Your task to perform on an android device: Do I have any events this weekend? Image 0: 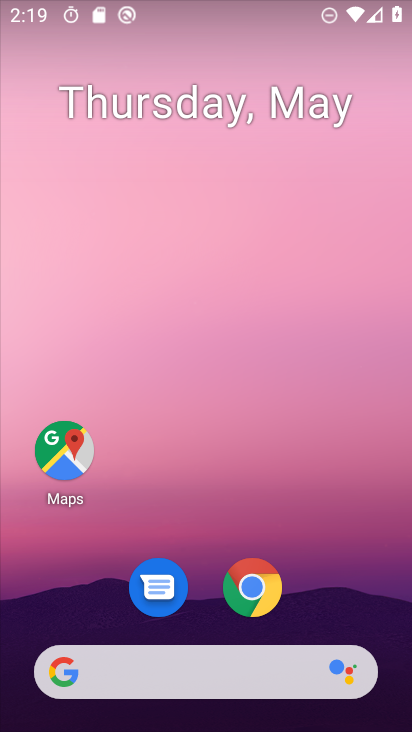
Step 0: drag from (334, 542) to (373, 154)
Your task to perform on an android device: Do I have any events this weekend? Image 1: 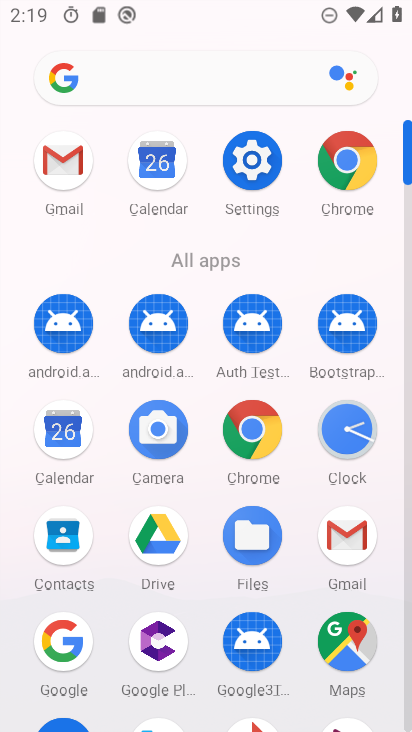
Step 1: click (62, 428)
Your task to perform on an android device: Do I have any events this weekend? Image 2: 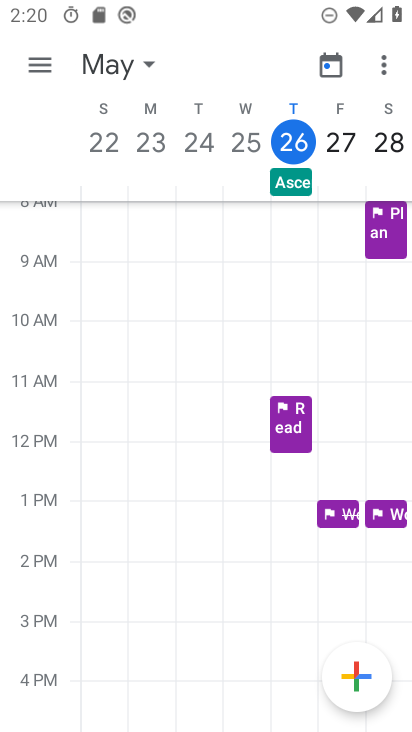
Step 2: click (43, 62)
Your task to perform on an android device: Do I have any events this weekend? Image 3: 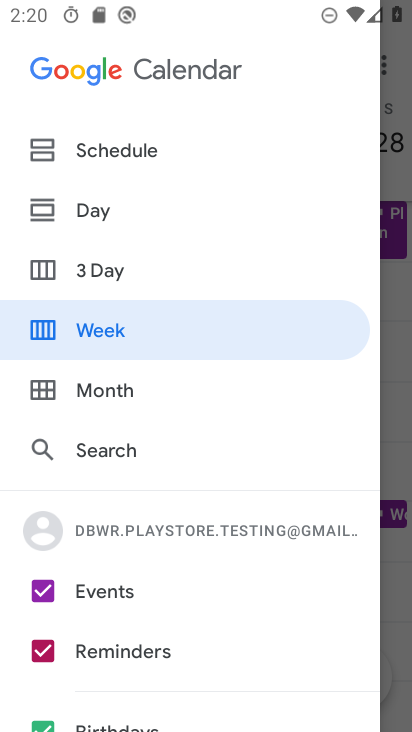
Step 3: click (150, 278)
Your task to perform on an android device: Do I have any events this weekend? Image 4: 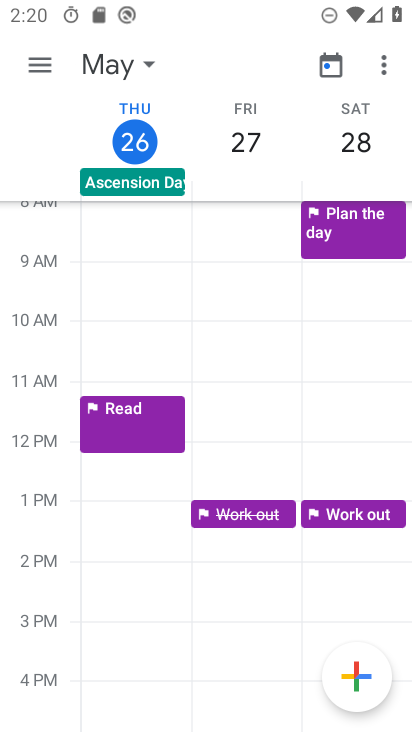
Step 4: task complete